Your task to perform on an android device: open app "Messages" Image 0: 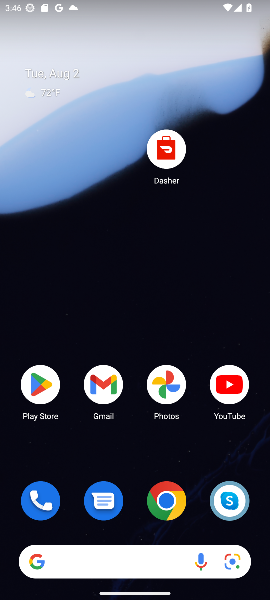
Step 0: click (103, 503)
Your task to perform on an android device: open app "Messages" Image 1: 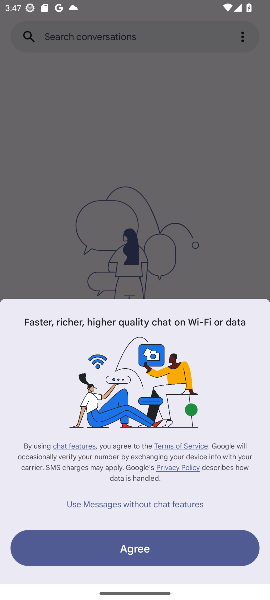
Step 1: task complete